Your task to perform on an android device: Open settings Image 0: 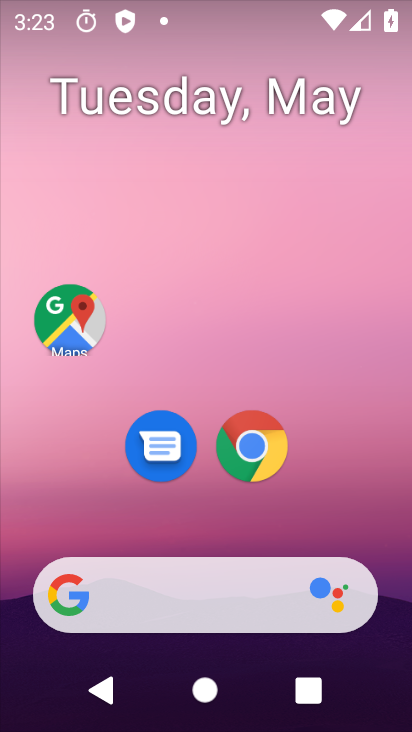
Step 0: click (203, 91)
Your task to perform on an android device: Open settings Image 1: 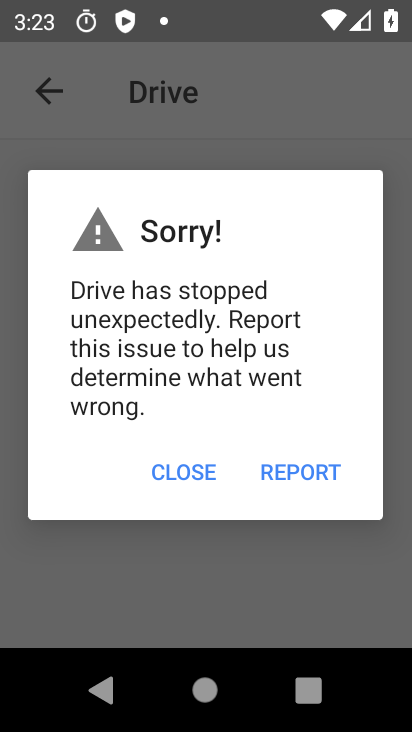
Step 1: press home button
Your task to perform on an android device: Open settings Image 2: 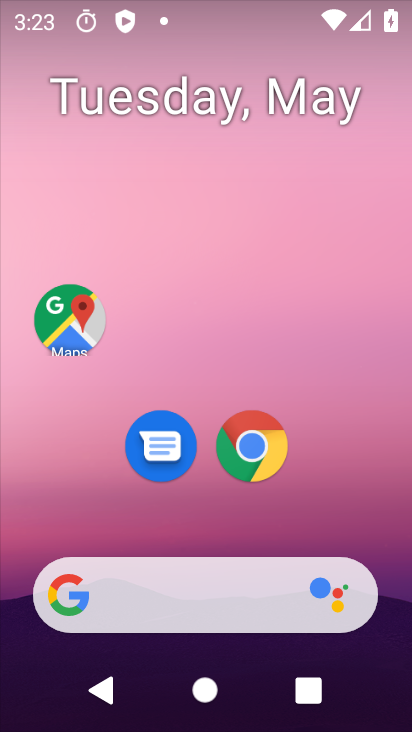
Step 2: drag from (212, 722) to (214, 165)
Your task to perform on an android device: Open settings Image 3: 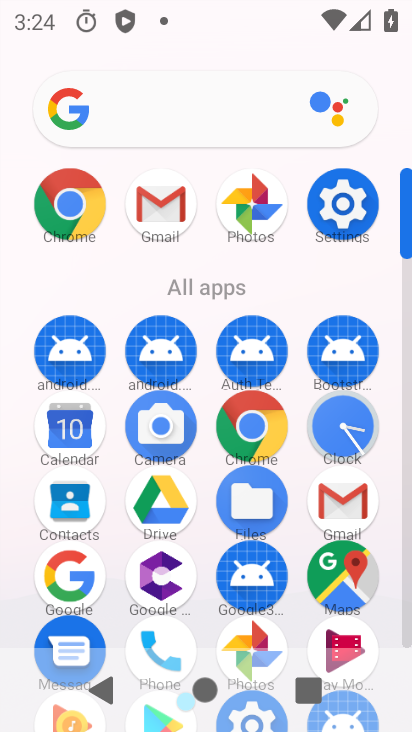
Step 3: click (346, 207)
Your task to perform on an android device: Open settings Image 4: 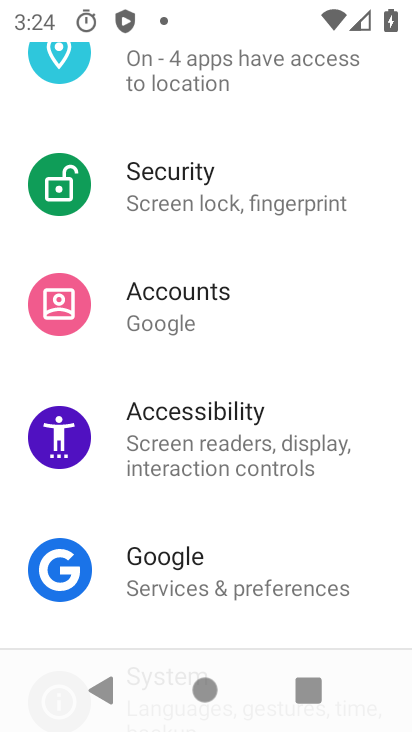
Step 4: task complete